Your task to perform on an android device: Open battery settings Image 0: 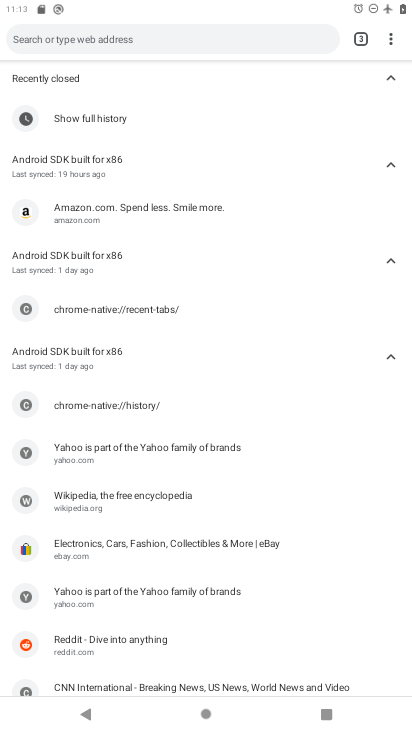
Step 0: press home button
Your task to perform on an android device: Open battery settings Image 1: 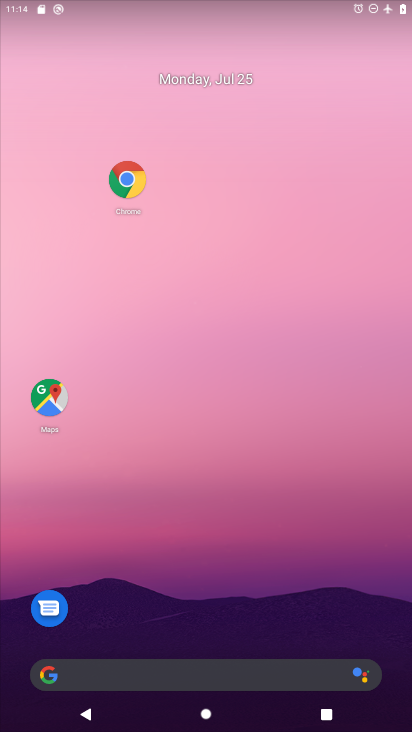
Step 1: drag from (235, 707) to (237, 54)
Your task to perform on an android device: Open battery settings Image 2: 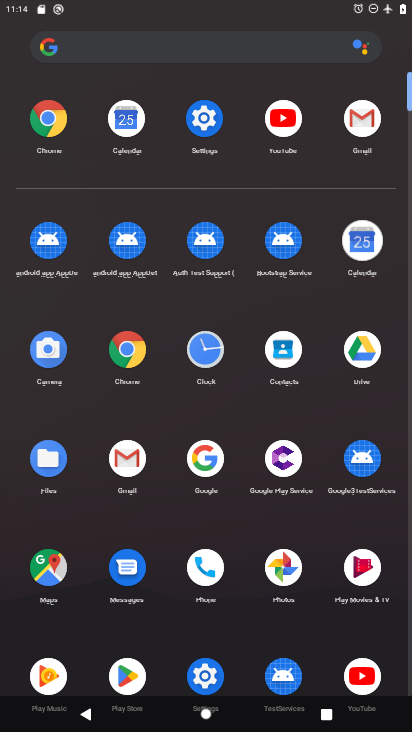
Step 2: click (214, 125)
Your task to perform on an android device: Open battery settings Image 3: 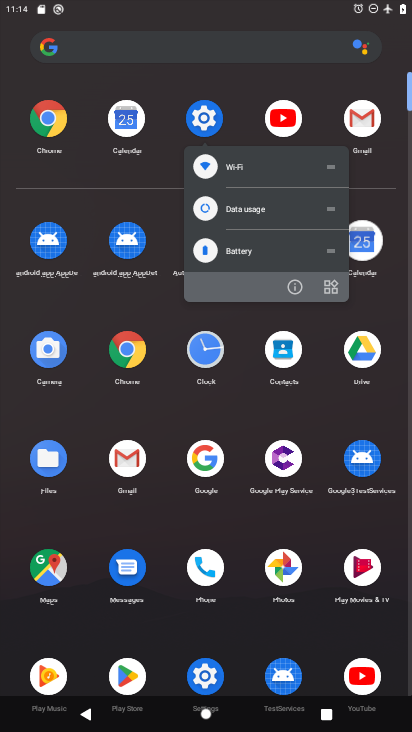
Step 3: click (214, 125)
Your task to perform on an android device: Open battery settings Image 4: 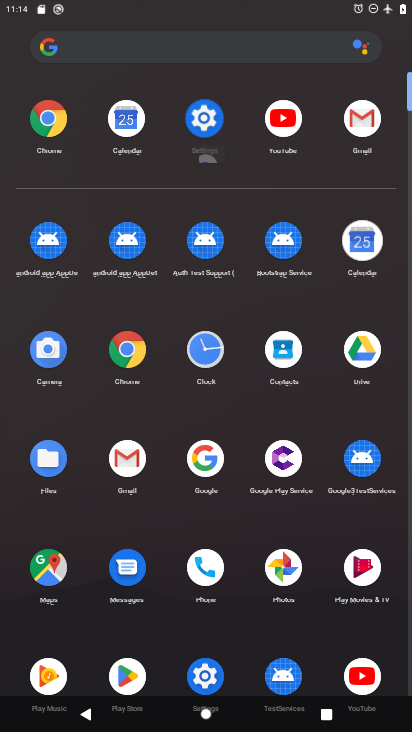
Step 4: click (214, 125)
Your task to perform on an android device: Open battery settings Image 5: 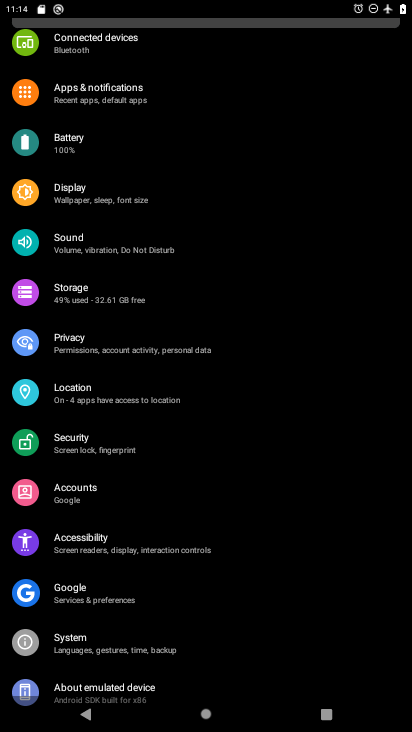
Step 5: click (77, 145)
Your task to perform on an android device: Open battery settings Image 6: 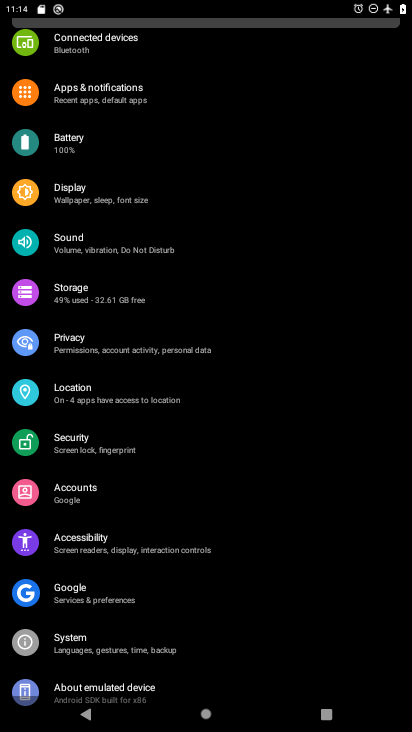
Step 6: click (77, 145)
Your task to perform on an android device: Open battery settings Image 7: 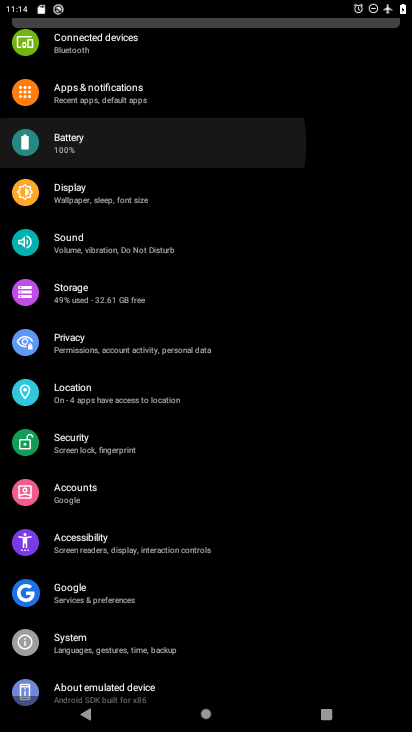
Step 7: click (77, 145)
Your task to perform on an android device: Open battery settings Image 8: 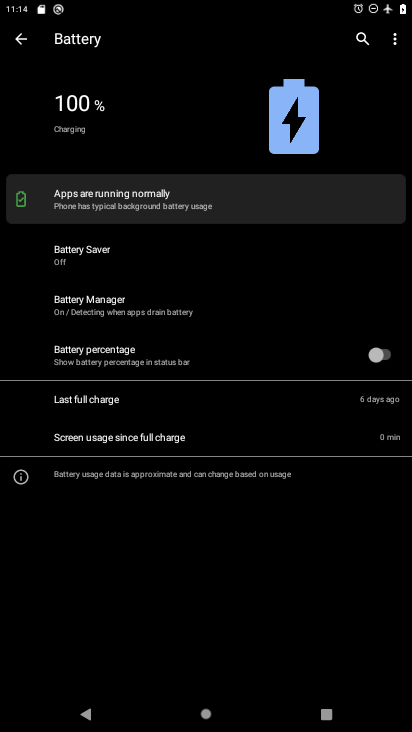
Step 8: task complete